Your task to perform on an android device: Open location settings Image 0: 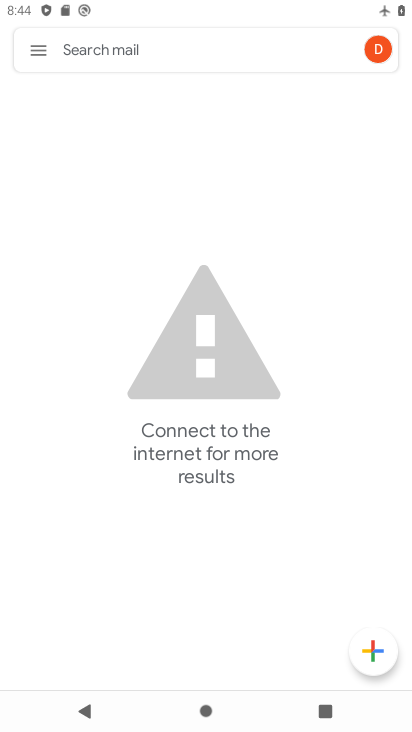
Step 0: press home button
Your task to perform on an android device: Open location settings Image 1: 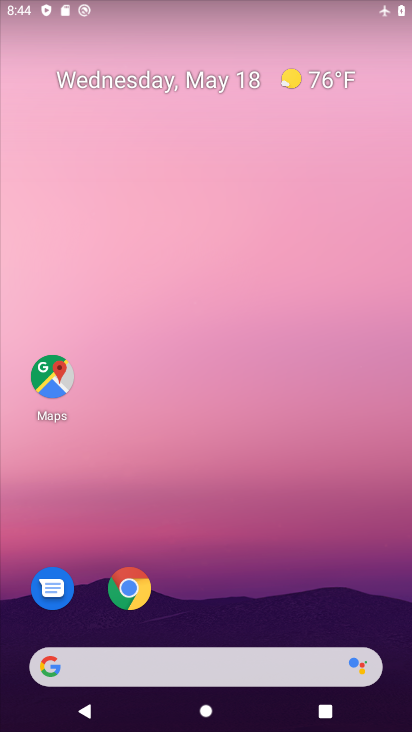
Step 1: drag from (177, 613) to (116, 157)
Your task to perform on an android device: Open location settings Image 2: 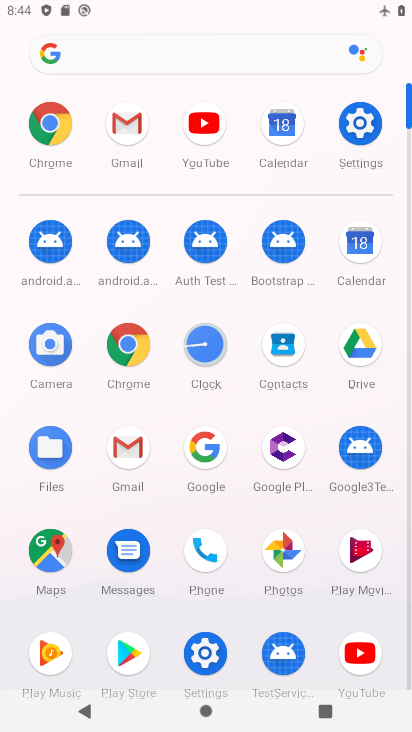
Step 2: click (366, 122)
Your task to perform on an android device: Open location settings Image 3: 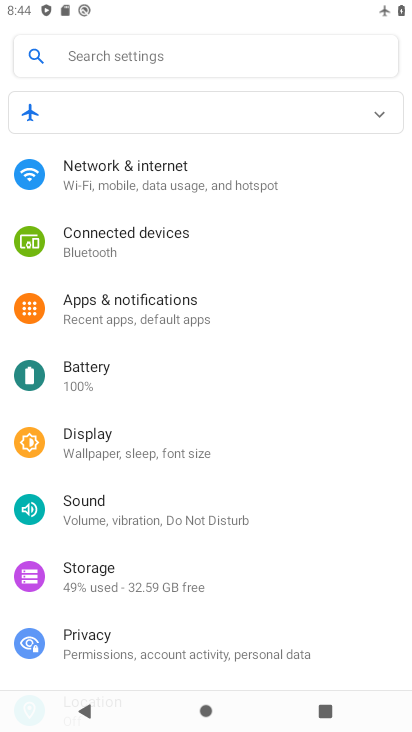
Step 3: drag from (162, 567) to (154, 304)
Your task to perform on an android device: Open location settings Image 4: 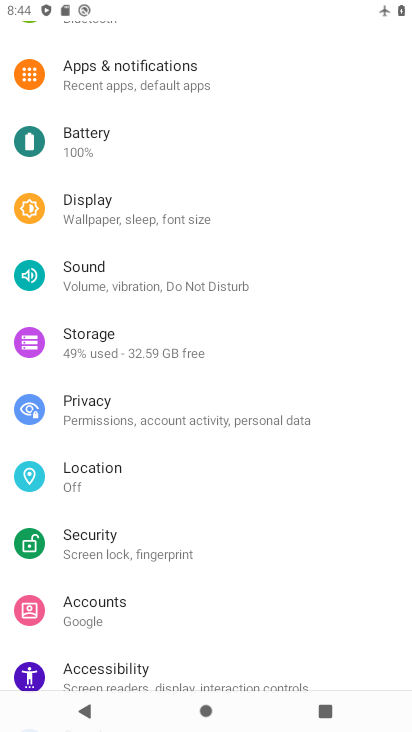
Step 4: click (156, 461)
Your task to perform on an android device: Open location settings Image 5: 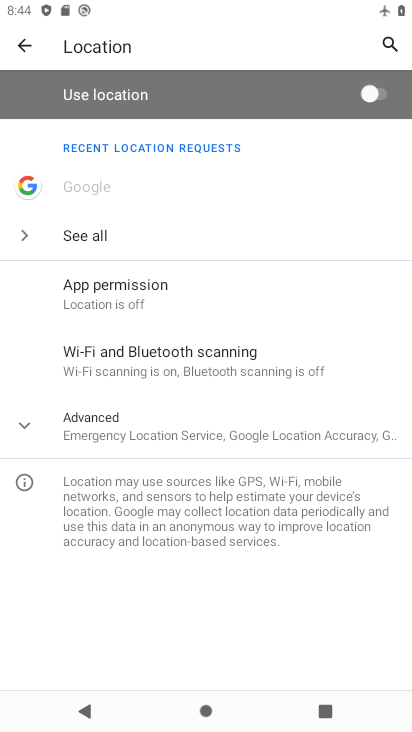
Step 5: task complete